Your task to perform on an android device: Open Yahoo.com Image 0: 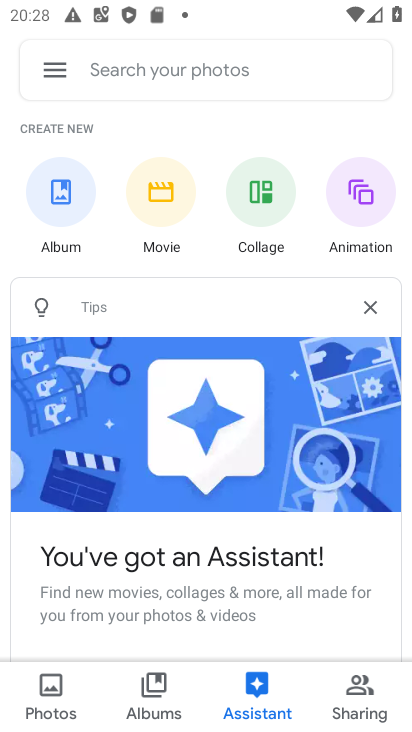
Step 0: press home button
Your task to perform on an android device: Open Yahoo.com Image 1: 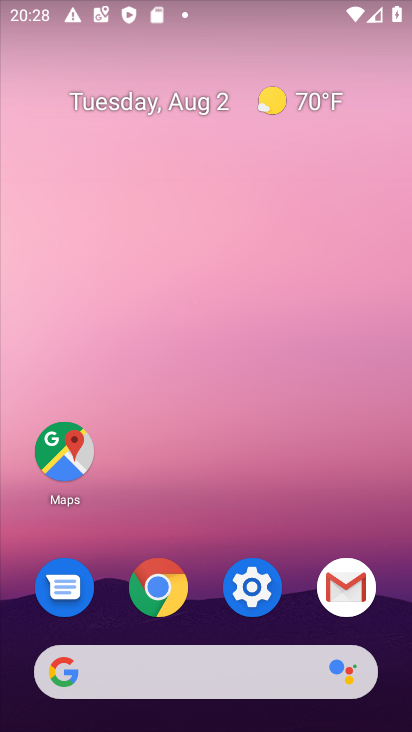
Step 1: click (149, 591)
Your task to perform on an android device: Open Yahoo.com Image 2: 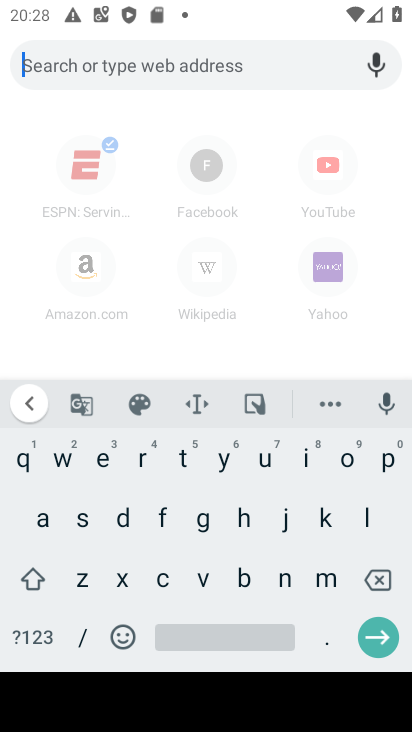
Step 2: click (223, 454)
Your task to perform on an android device: Open Yahoo.com Image 3: 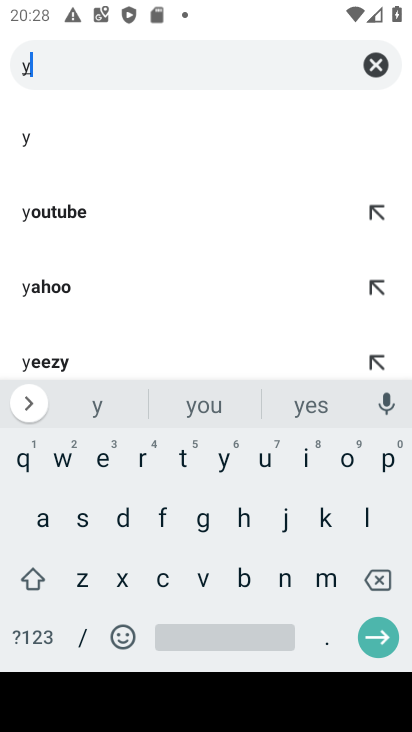
Step 3: click (97, 279)
Your task to perform on an android device: Open Yahoo.com Image 4: 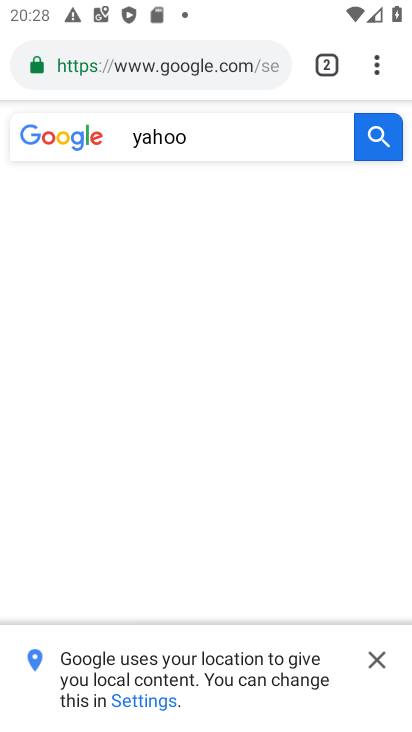
Step 4: click (374, 659)
Your task to perform on an android device: Open Yahoo.com Image 5: 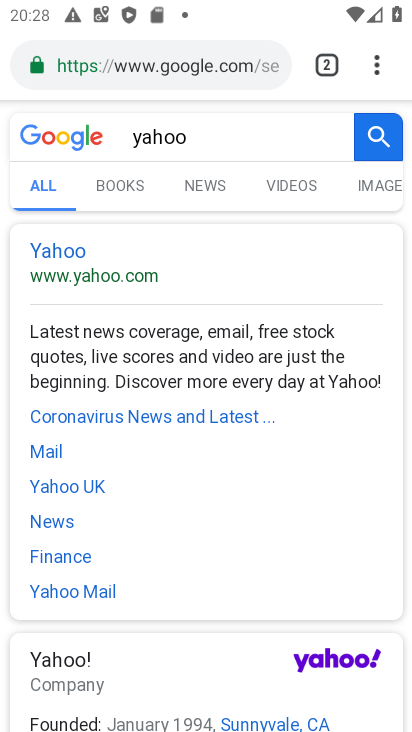
Step 5: click (77, 257)
Your task to perform on an android device: Open Yahoo.com Image 6: 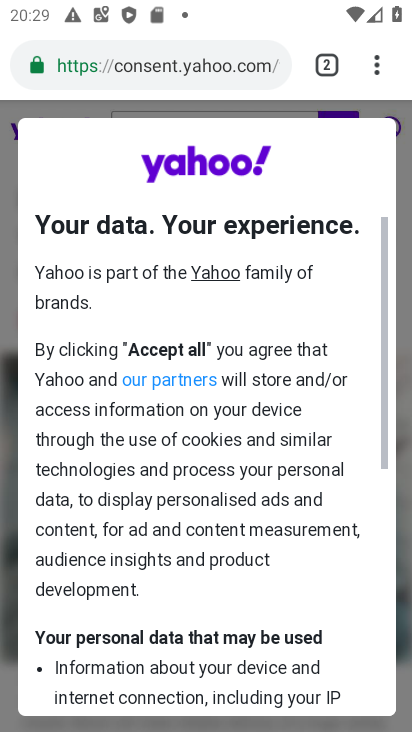
Step 6: drag from (213, 497) to (230, 146)
Your task to perform on an android device: Open Yahoo.com Image 7: 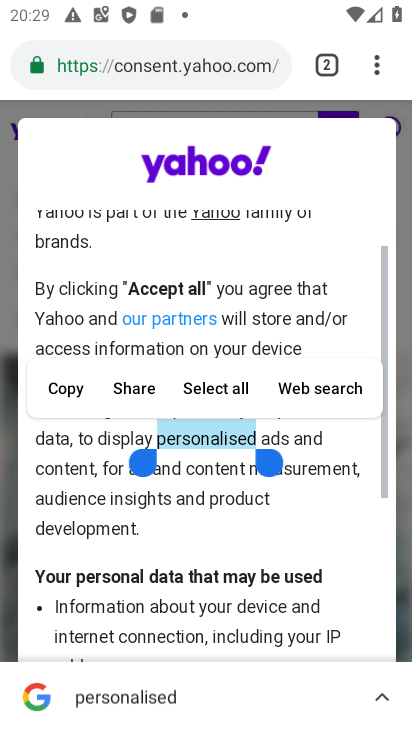
Step 7: drag from (200, 562) to (213, 378)
Your task to perform on an android device: Open Yahoo.com Image 8: 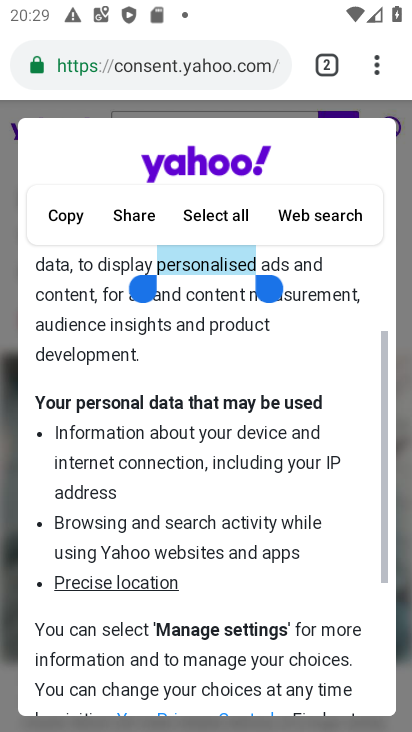
Step 8: drag from (233, 665) to (249, 475)
Your task to perform on an android device: Open Yahoo.com Image 9: 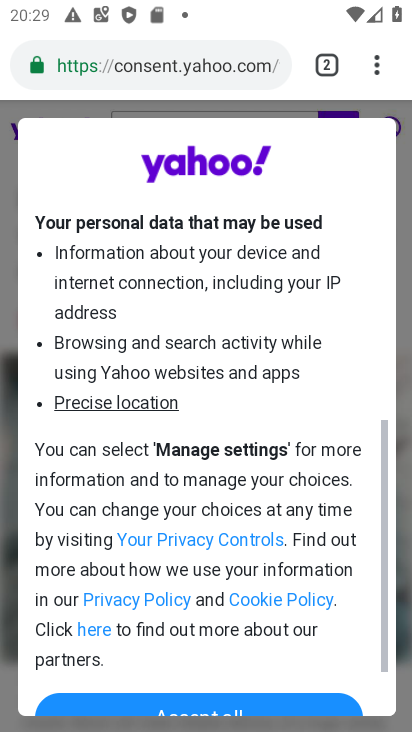
Step 9: drag from (264, 634) to (217, 253)
Your task to perform on an android device: Open Yahoo.com Image 10: 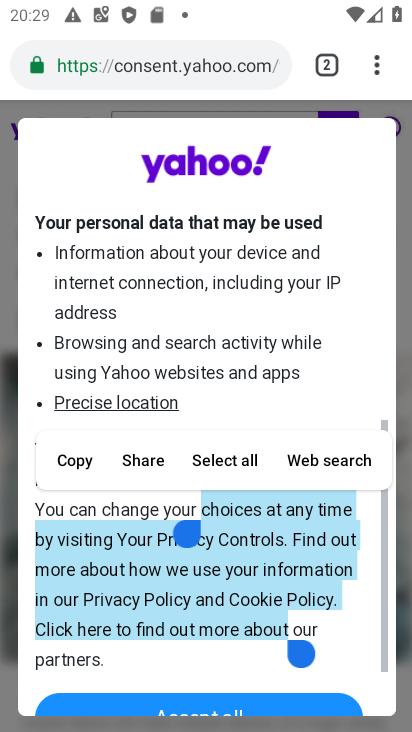
Step 10: click (228, 699)
Your task to perform on an android device: Open Yahoo.com Image 11: 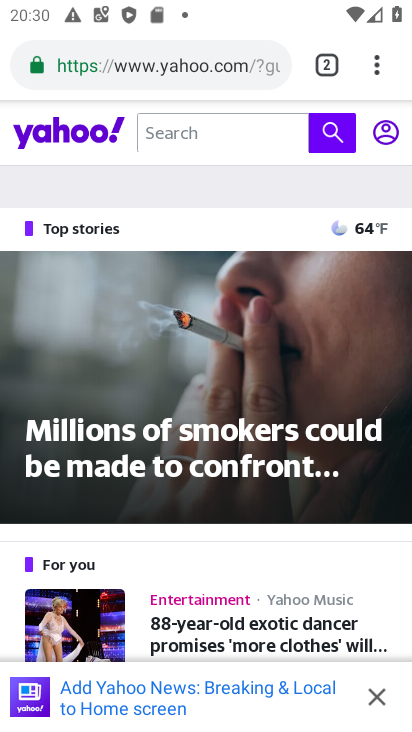
Step 11: task complete